Your task to perform on an android device: Open calendar and show me the first week of next month Image 0: 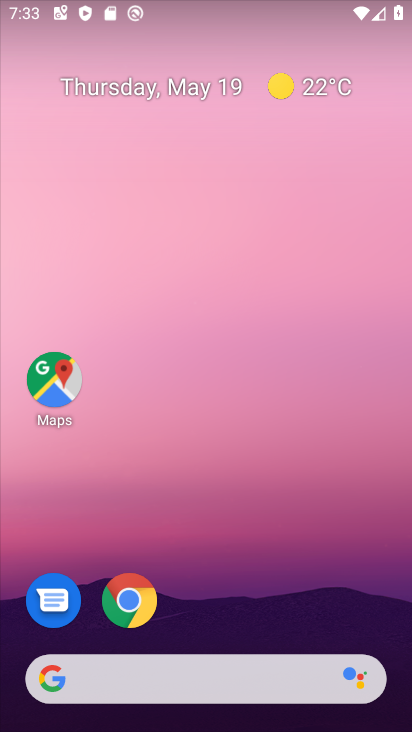
Step 0: drag from (257, 585) to (270, 183)
Your task to perform on an android device: Open calendar and show me the first week of next month Image 1: 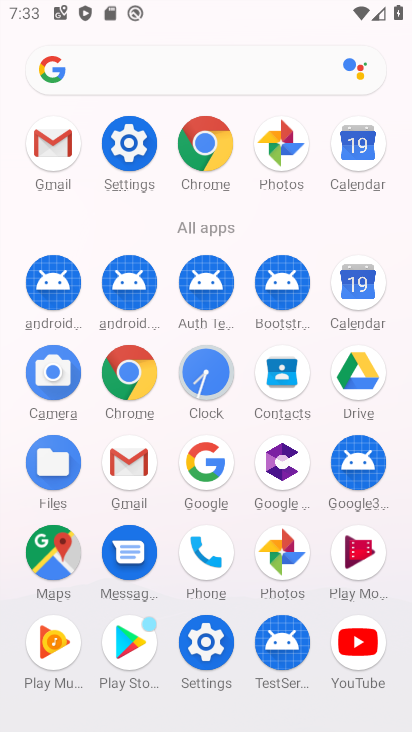
Step 1: click (350, 282)
Your task to perform on an android device: Open calendar and show me the first week of next month Image 2: 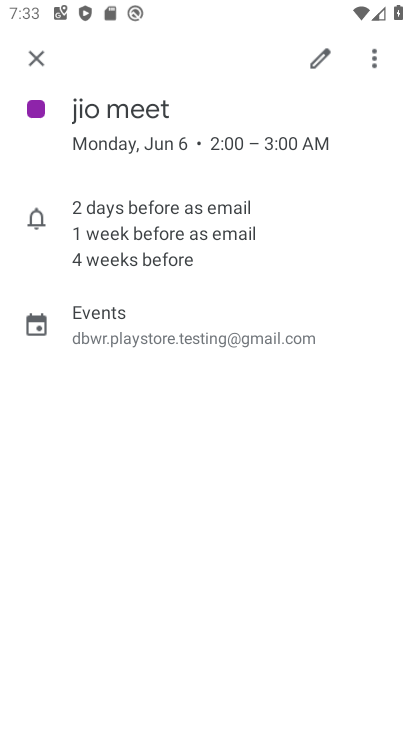
Step 2: click (31, 53)
Your task to perform on an android device: Open calendar and show me the first week of next month Image 3: 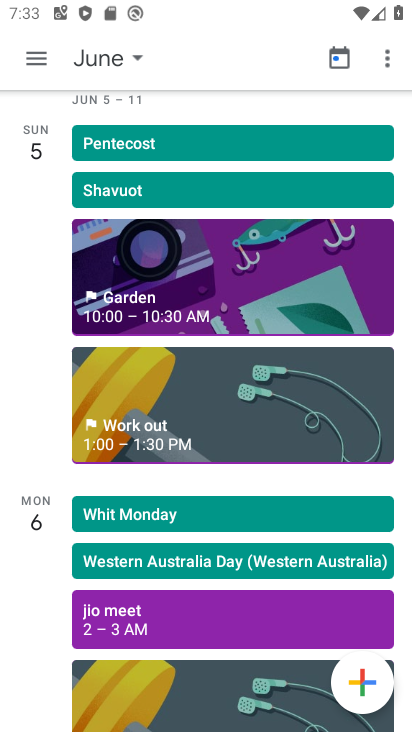
Step 3: click (105, 63)
Your task to perform on an android device: Open calendar and show me the first week of next month Image 4: 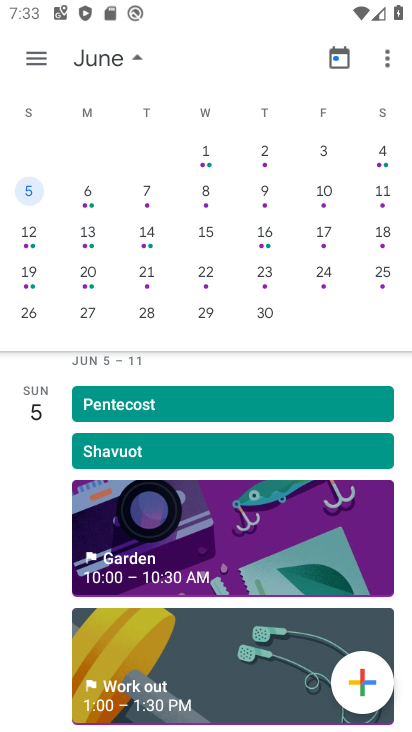
Step 4: click (207, 149)
Your task to perform on an android device: Open calendar and show me the first week of next month Image 5: 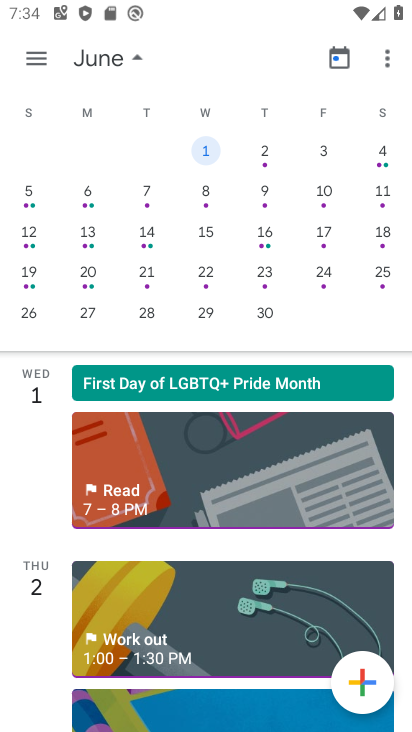
Step 5: task complete